Your task to perform on an android device: Do I have any events tomorrow? Image 0: 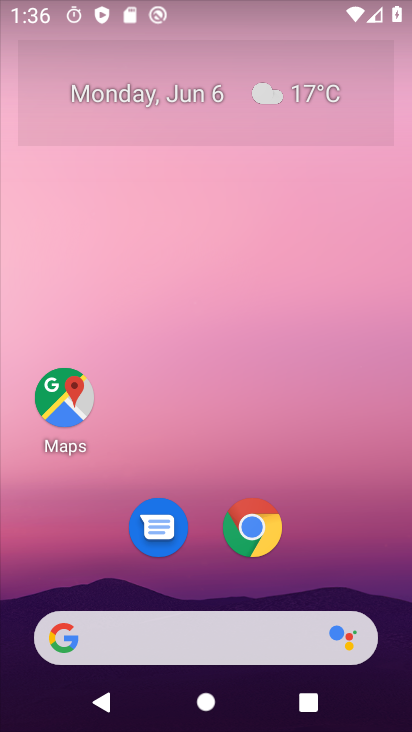
Step 0: drag from (223, 723) to (228, 133)
Your task to perform on an android device: Do I have any events tomorrow? Image 1: 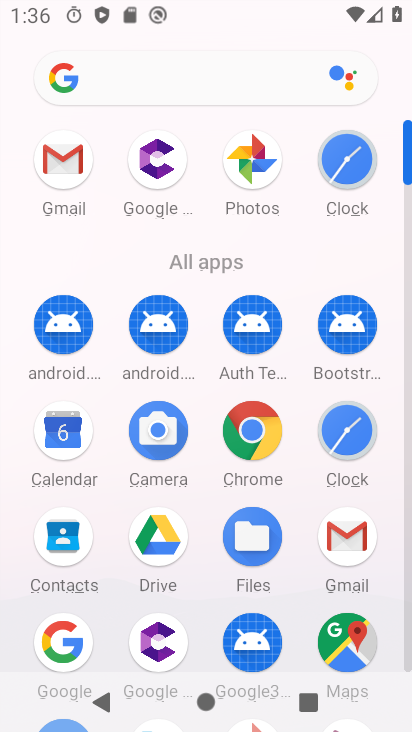
Step 1: click (79, 427)
Your task to perform on an android device: Do I have any events tomorrow? Image 2: 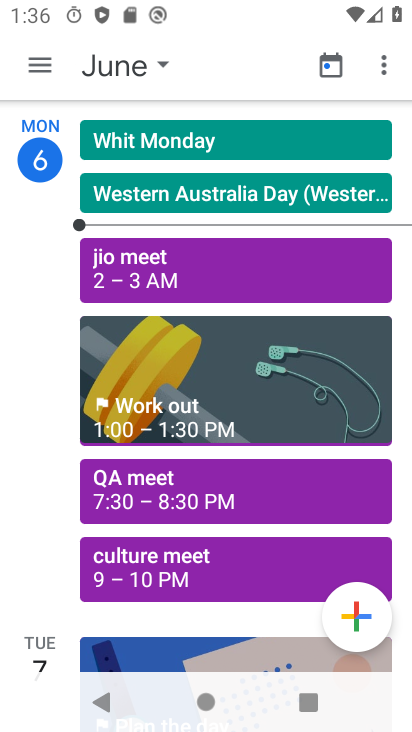
Step 2: click (170, 59)
Your task to perform on an android device: Do I have any events tomorrow? Image 3: 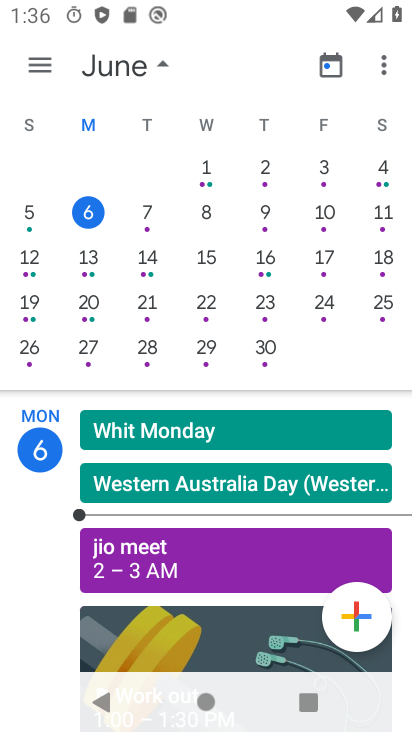
Step 3: click (145, 213)
Your task to perform on an android device: Do I have any events tomorrow? Image 4: 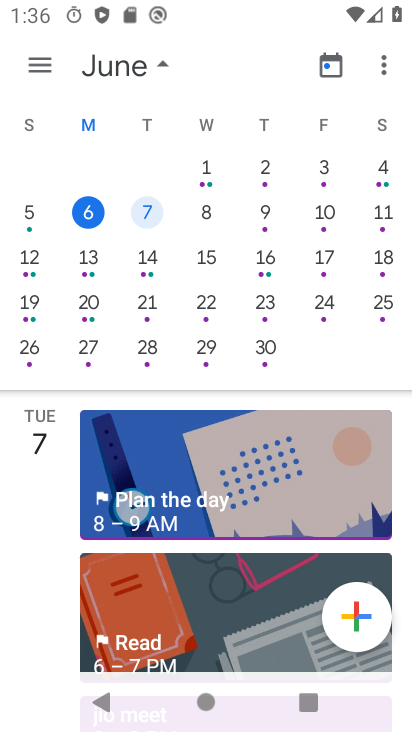
Step 4: click (145, 210)
Your task to perform on an android device: Do I have any events tomorrow? Image 5: 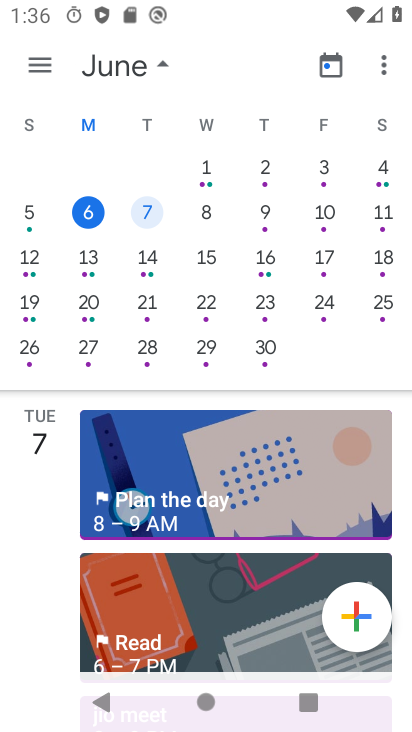
Step 5: click (146, 209)
Your task to perform on an android device: Do I have any events tomorrow? Image 6: 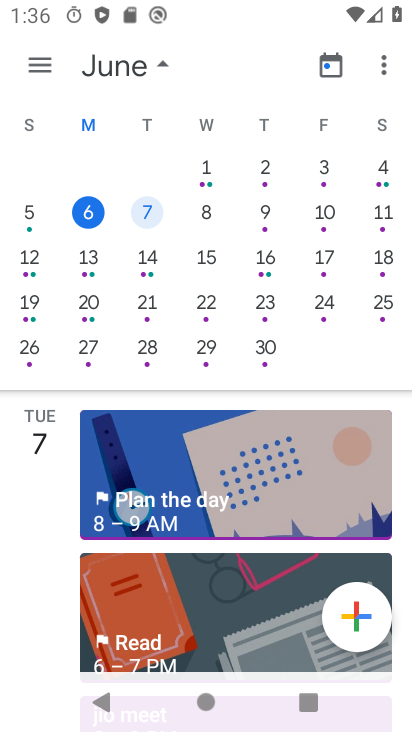
Step 6: click (164, 66)
Your task to perform on an android device: Do I have any events tomorrow? Image 7: 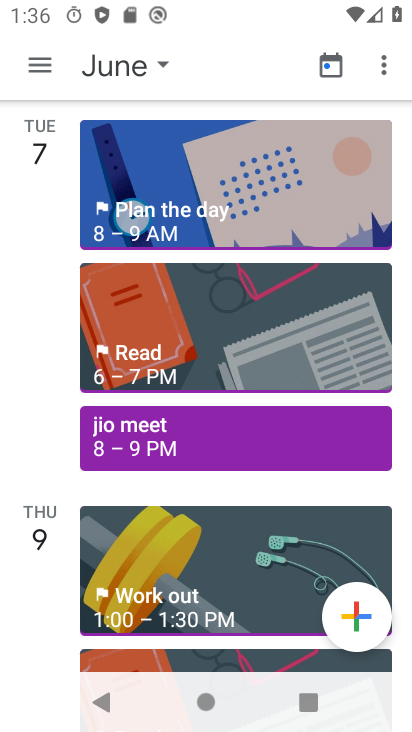
Step 7: task complete